Your task to perform on an android device: Go to CNN.com Image 0: 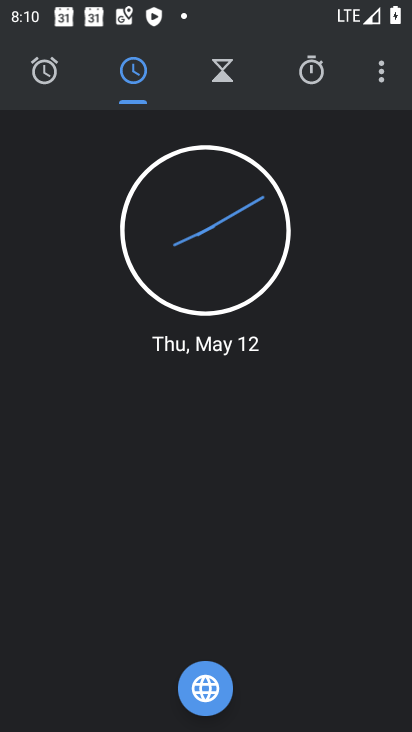
Step 0: press home button
Your task to perform on an android device: Go to CNN.com Image 1: 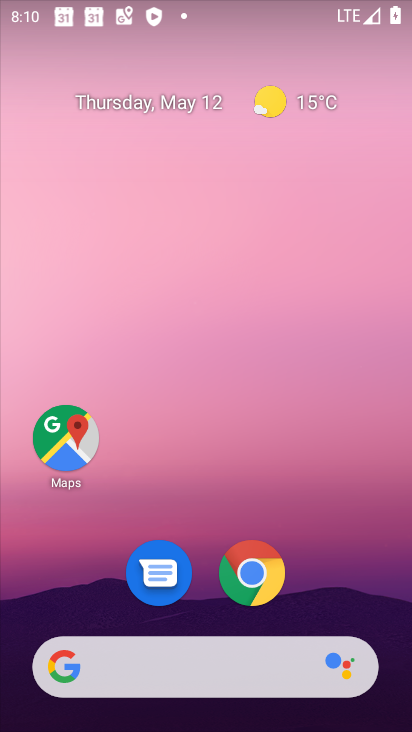
Step 1: click (219, 667)
Your task to perform on an android device: Go to CNN.com Image 2: 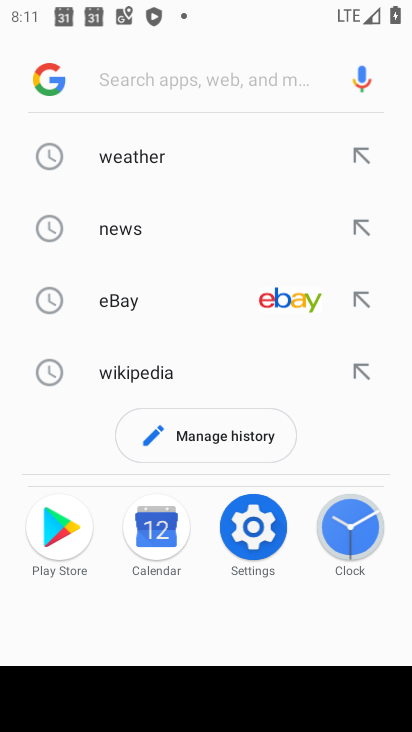
Step 2: type "cnn.com"
Your task to perform on an android device: Go to CNN.com Image 3: 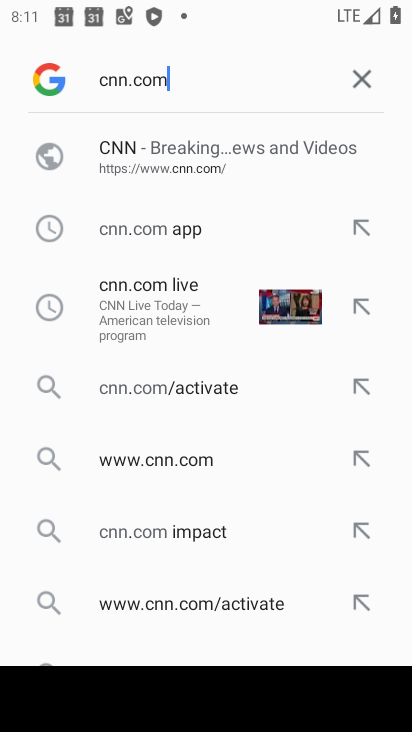
Step 3: click (224, 138)
Your task to perform on an android device: Go to CNN.com Image 4: 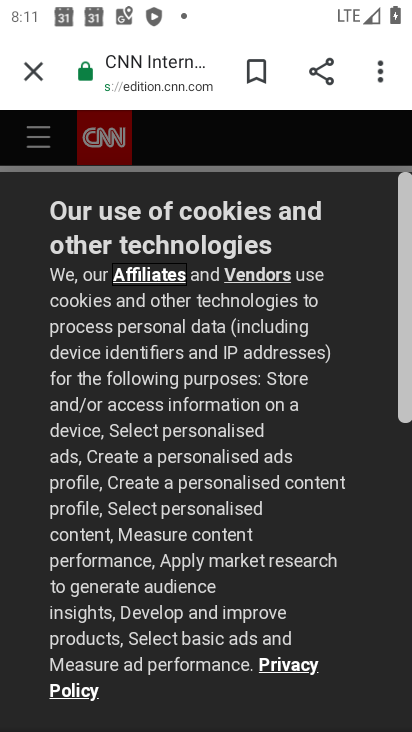
Step 4: task complete